Your task to perform on an android device: Open internet settings Image 0: 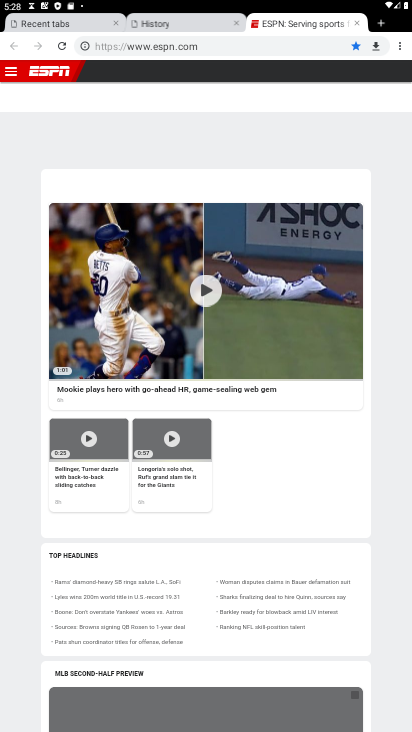
Step 0: press home button
Your task to perform on an android device: Open internet settings Image 1: 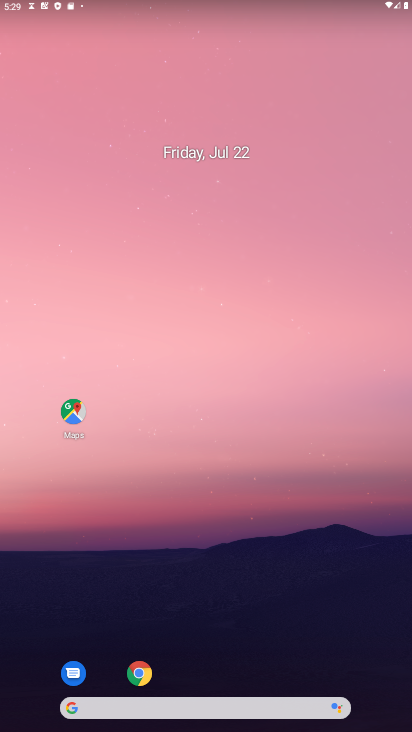
Step 1: drag from (282, 669) to (285, 108)
Your task to perform on an android device: Open internet settings Image 2: 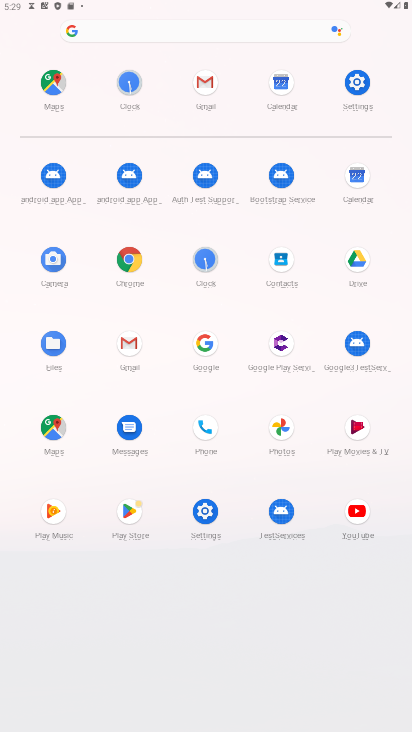
Step 2: click (361, 91)
Your task to perform on an android device: Open internet settings Image 3: 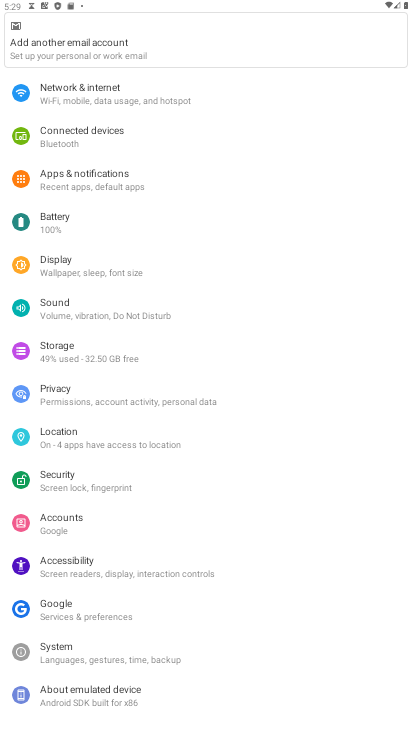
Step 3: click (103, 97)
Your task to perform on an android device: Open internet settings Image 4: 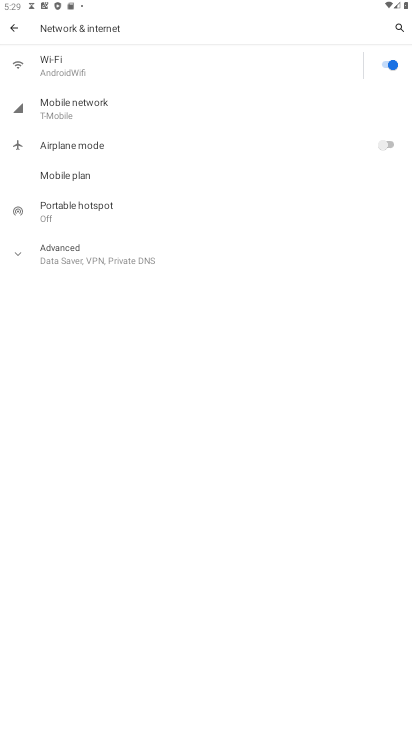
Step 4: task complete